Your task to perform on an android device: Open Youtube and go to "Your channel" Image 0: 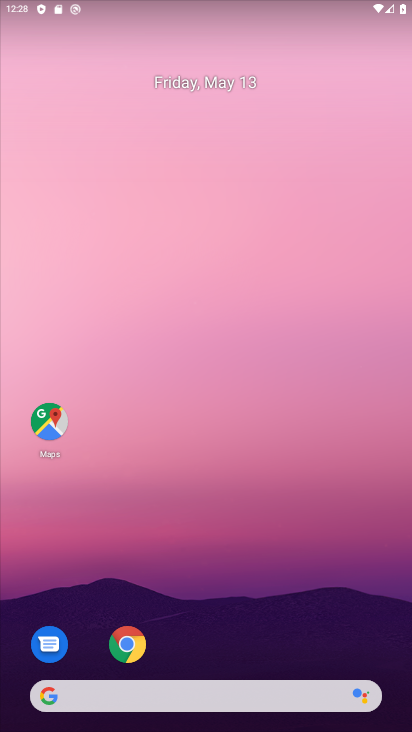
Step 0: drag from (258, 606) to (234, 69)
Your task to perform on an android device: Open Youtube and go to "Your channel" Image 1: 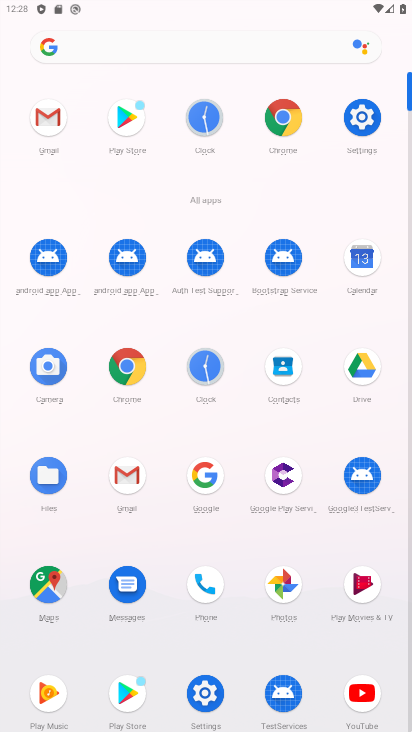
Step 1: click (364, 688)
Your task to perform on an android device: Open Youtube and go to "Your channel" Image 2: 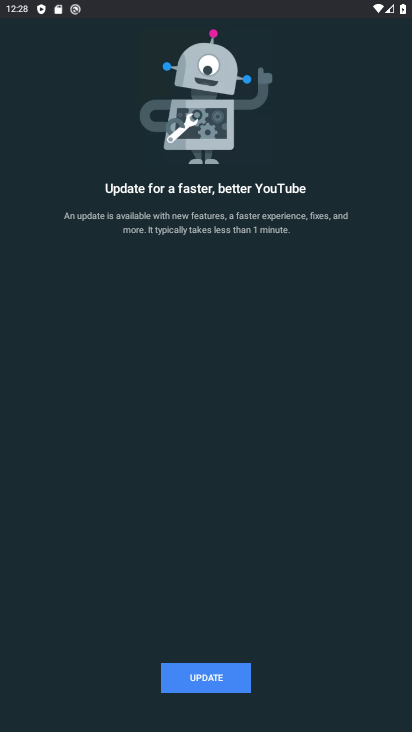
Step 2: click (218, 673)
Your task to perform on an android device: Open Youtube and go to "Your channel" Image 3: 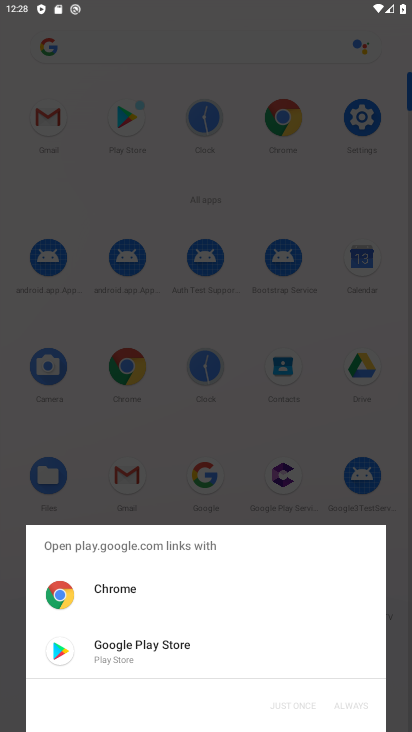
Step 3: click (152, 644)
Your task to perform on an android device: Open Youtube and go to "Your channel" Image 4: 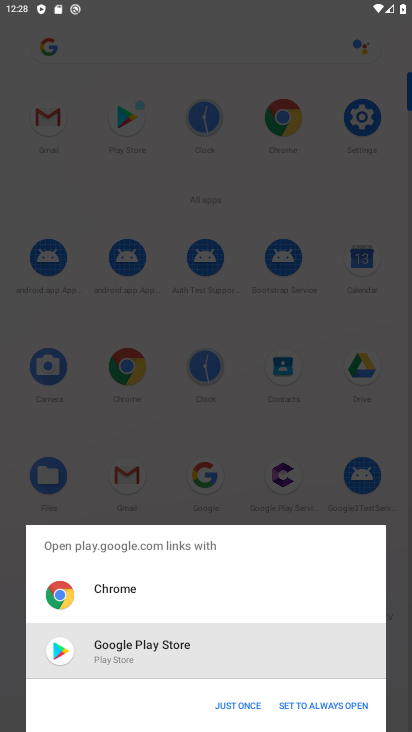
Step 4: click (226, 699)
Your task to perform on an android device: Open Youtube and go to "Your channel" Image 5: 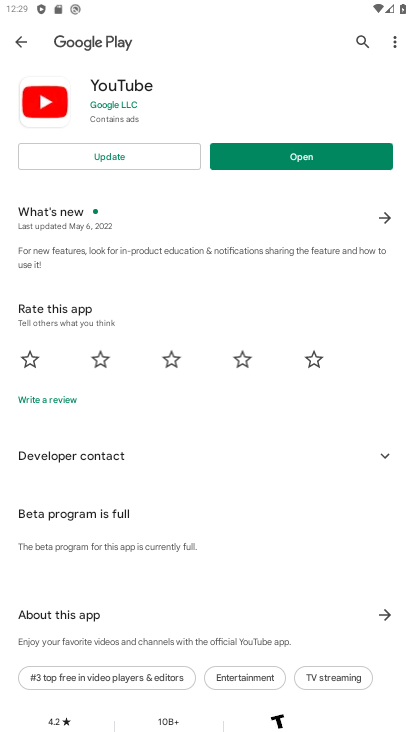
Step 5: click (334, 155)
Your task to perform on an android device: Open Youtube and go to "Your channel" Image 6: 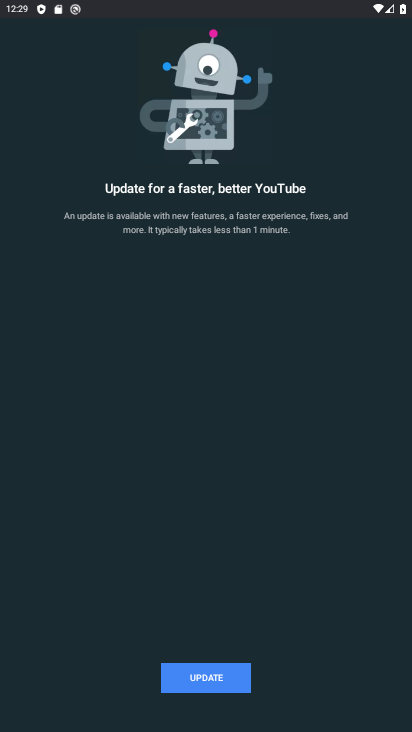
Step 6: click (216, 675)
Your task to perform on an android device: Open Youtube and go to "Your channel" Image 7: 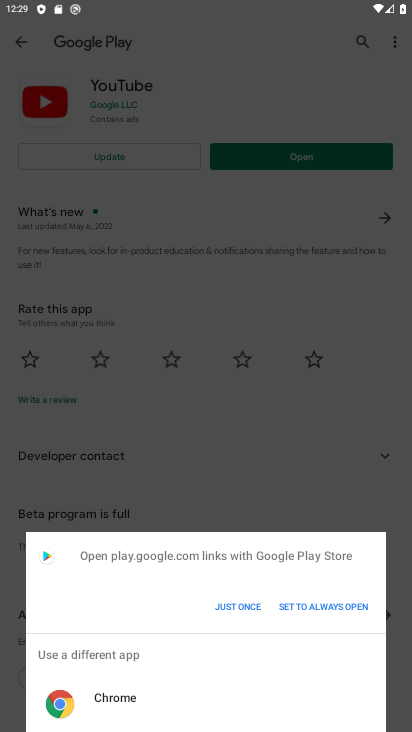
Step 7: click (183, 562)
Your task to perform on an android device: Open Youtube and go to "Your channel" Image 8: 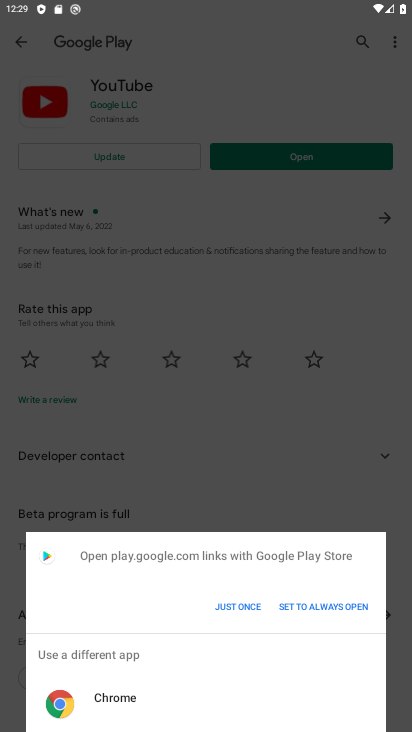
Step 8: click (225, 606)
Your task to perform on an android device: Open Youtube and go to "Your channel" Image 9: 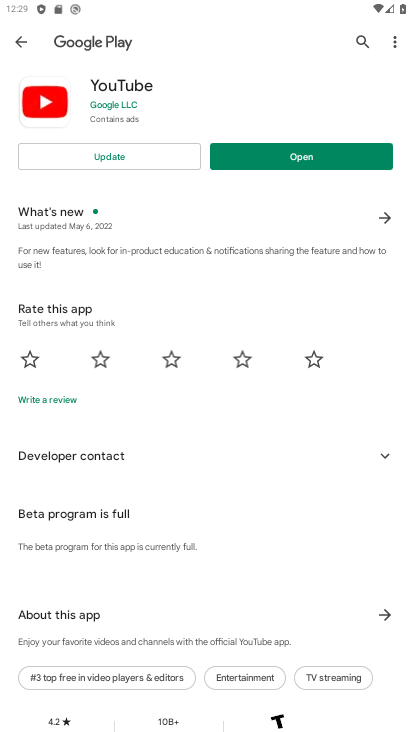
Step 9: click (132, 150)
Your task to perform on an android device: Open Youtube and go to "Your channel" Image 10: 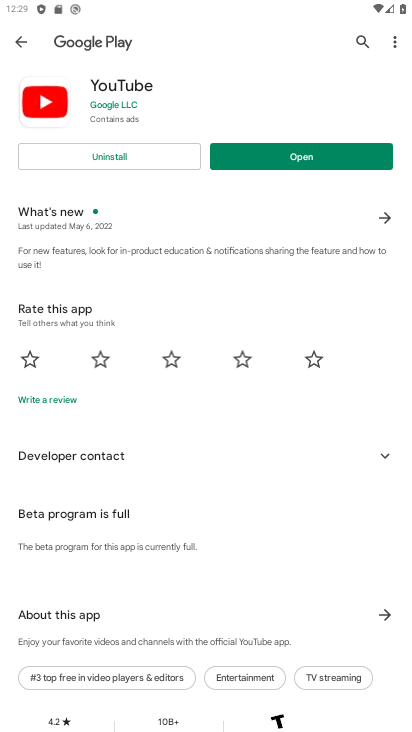
Step 10: click (346, 156)
Your task to perform on an android device: Open Youtube and go to "Your channel" Image 11: 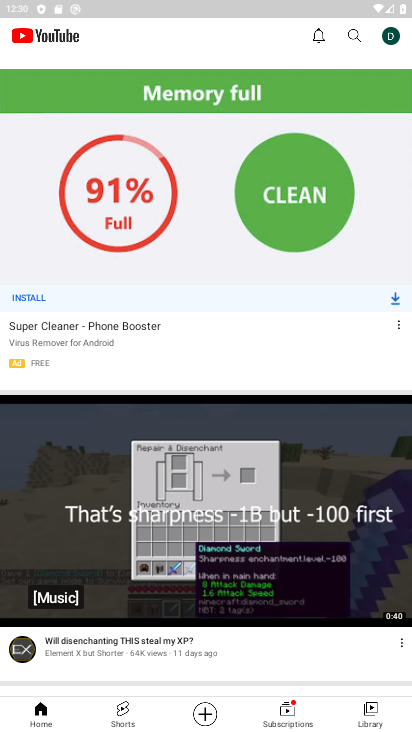
Step 11: click (387, 33)
Your task to perform on an android device: Open Youtube and go to "Your channel" Image 12: 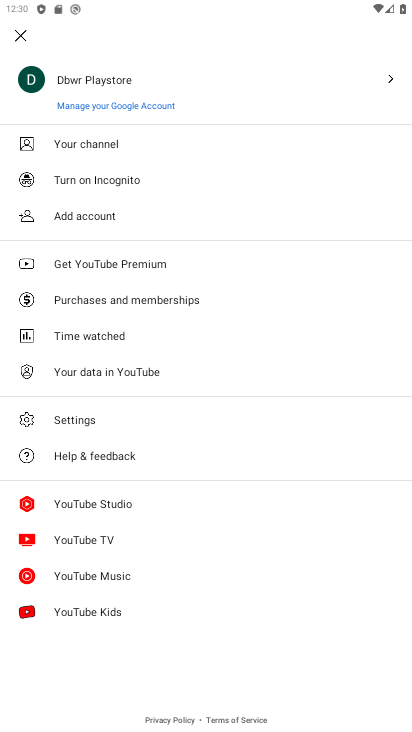
Step 12: click (108, 146)
Your task to perform on an android device: Open Youtube and go to "Your channel" Image 13: 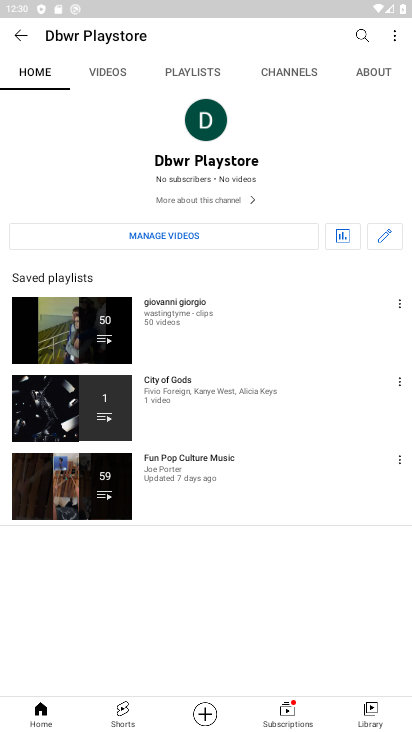
Step 13: task complete